Your task to perform on an android device: star an email in the gmail app Image 0: 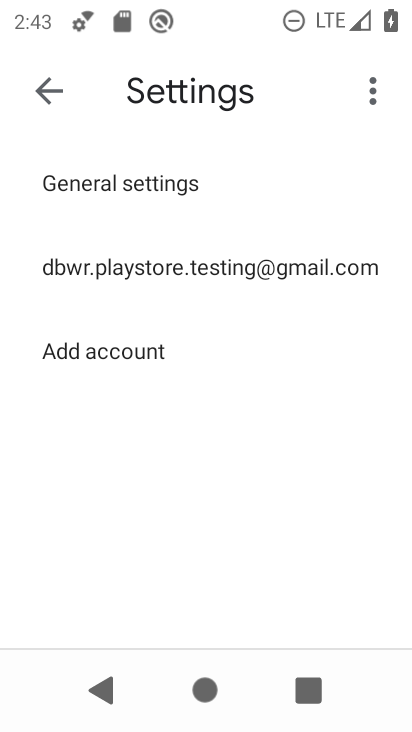
Step 0: click (43, 94)
Your task to perform on an android device: star an email in the gmail app Image 1: 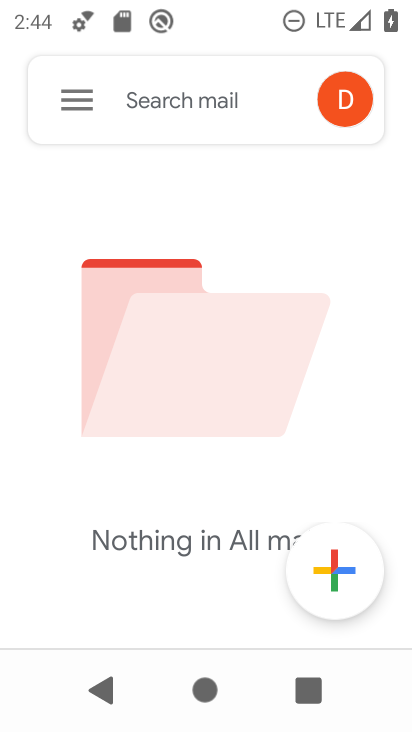
Step 1: task complete